Your task to perform on an android device: Is it going to rain this weekend? Image 0: 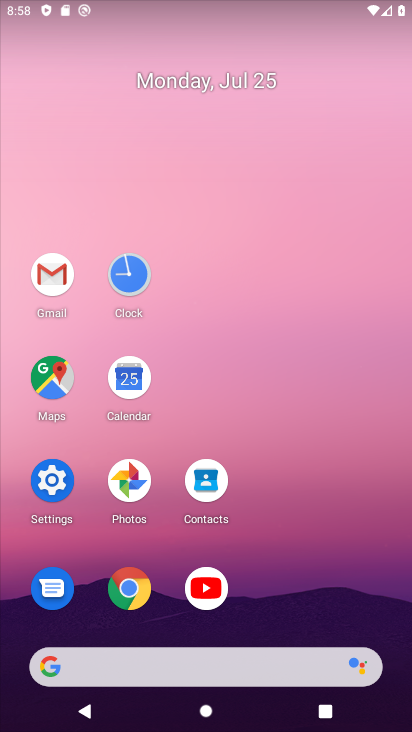
Step 0: click (158, 662)
Your task to perform on an android device: Is it going to rain this weekend? Image 1: 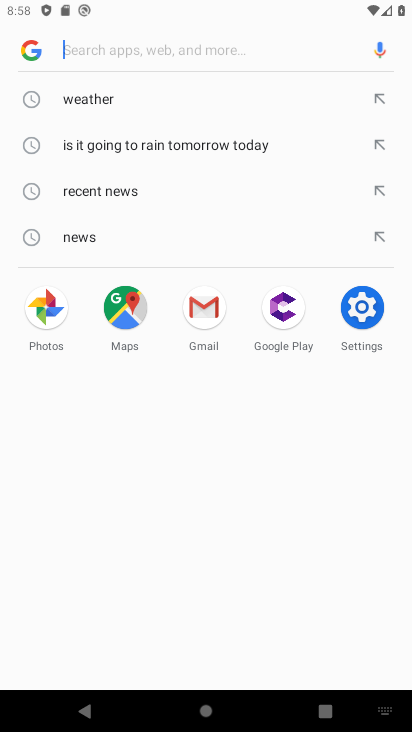
Step 1: click (89, 94)
Your task to perform on an android device: Is it going to rain this weekend? Image 2: 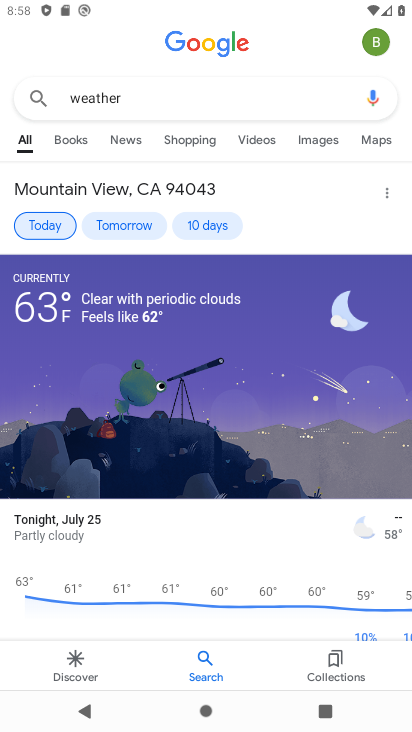
Step 2: click (217, 225)
Your task to perform on an android device: Is it going to rain this weekend? Image 3: 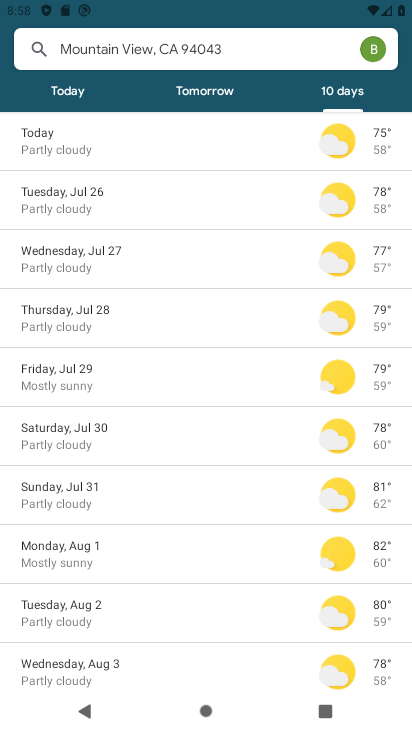
Step 3: task complete